Your task to perform on an android device: check battery use Image 0: 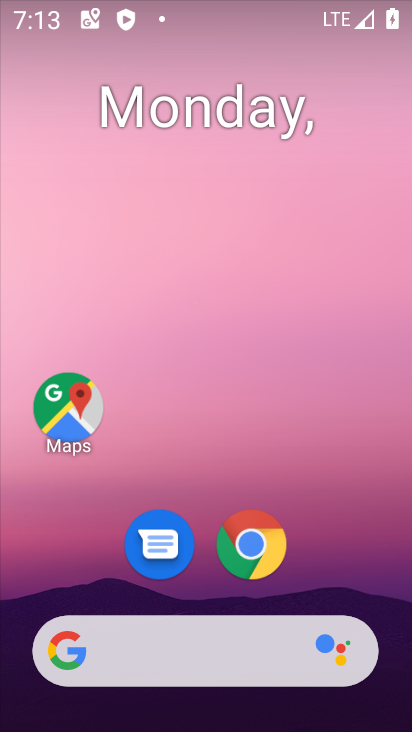
Step 0: drag from (328, 520) to (247, 32)
Your task to perform on an android device: check battery use Image 1: 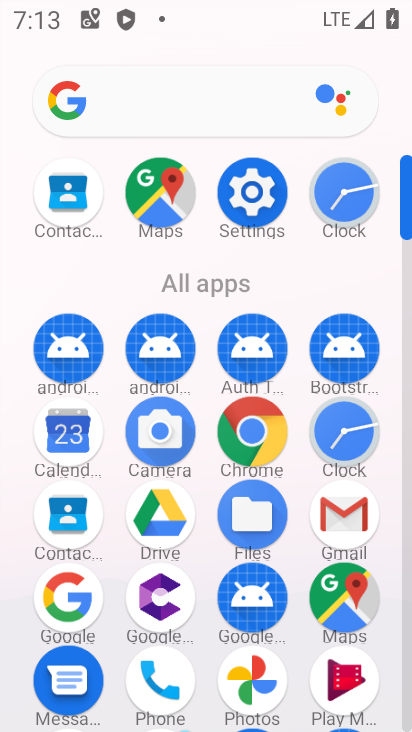
Step 1: click (249, 193)
Your task to perform on an android device: check battery use Image 2: 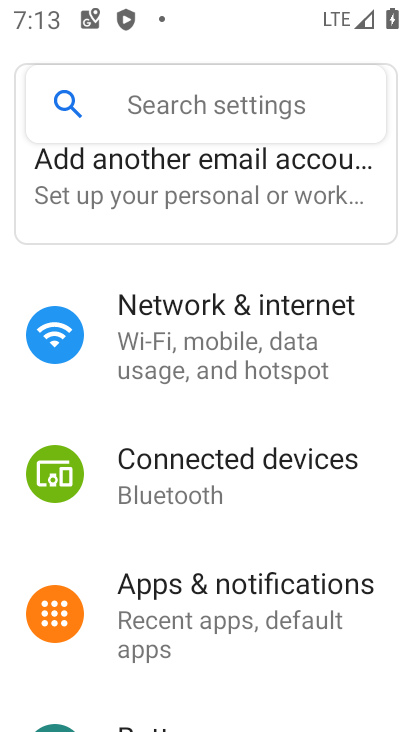
Step 2: drag from (241, 548) to (198, 183)
Your task to perform on an android device: check battery use Image 3: 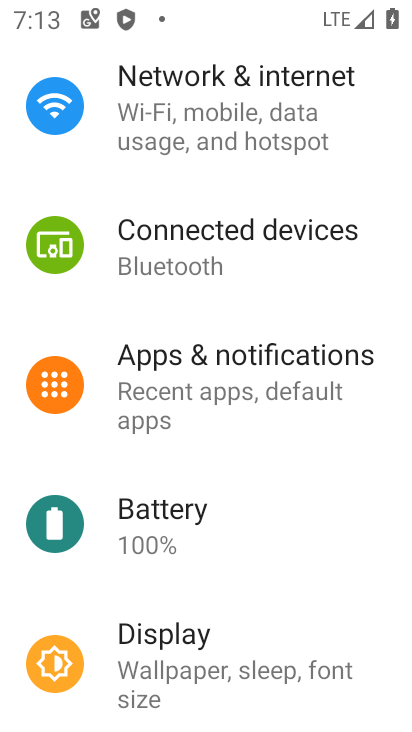
Step 3: click (167, 513)
Your task to perform on an android device: check battery use Image 4: 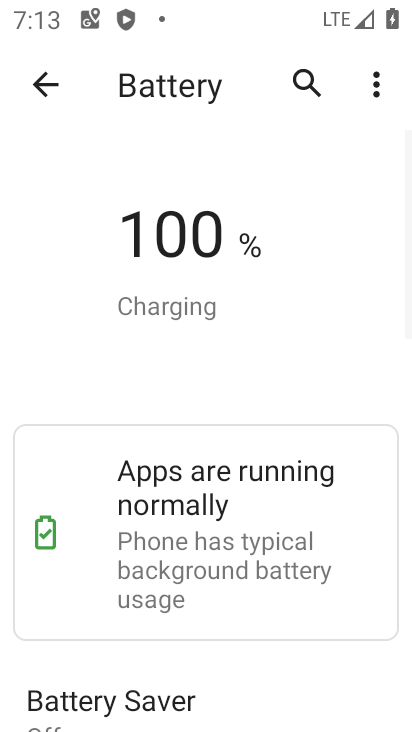
Step 4: task complete